Your task to perform on an android device: Go to network settings Image 0: 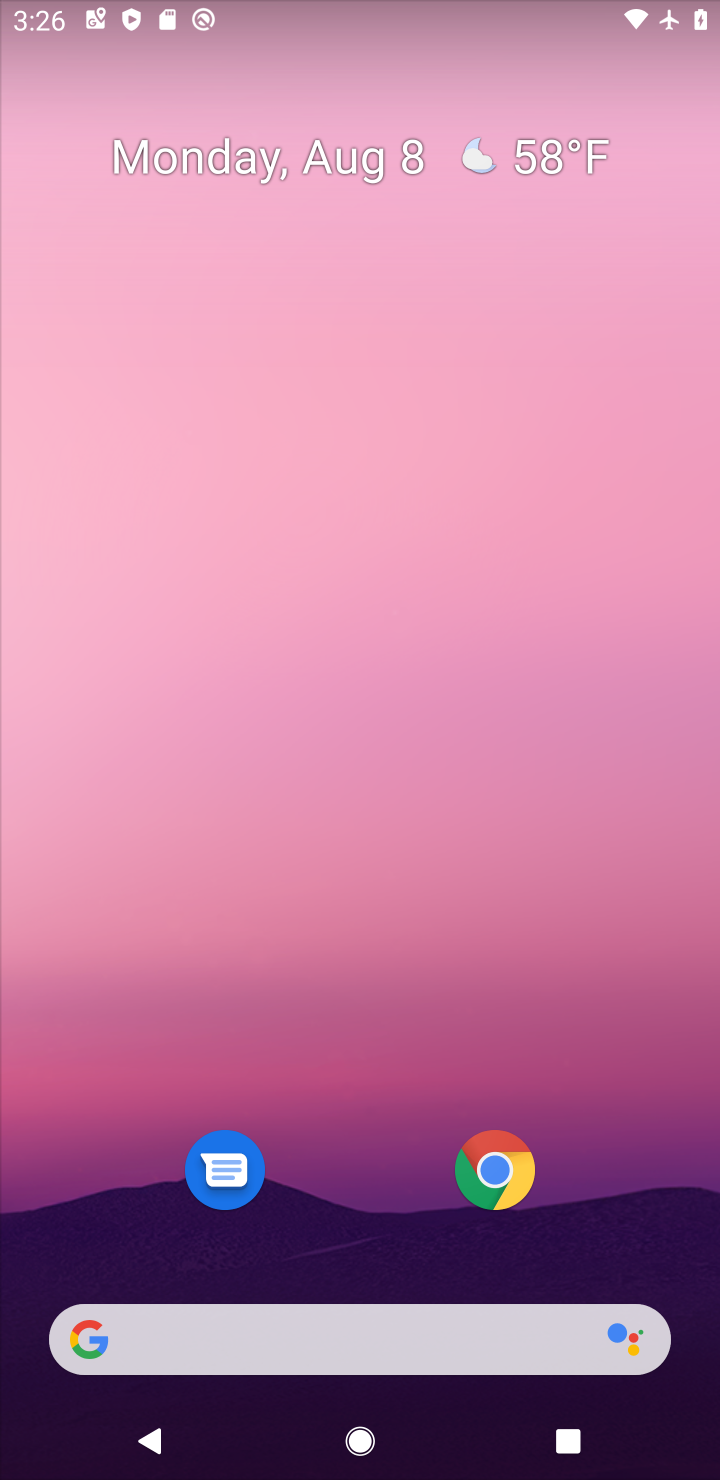
Step 0: drag from (359, 1019) to (368, 440)
Your task to perform on an android device: Go to network settings Image 1: 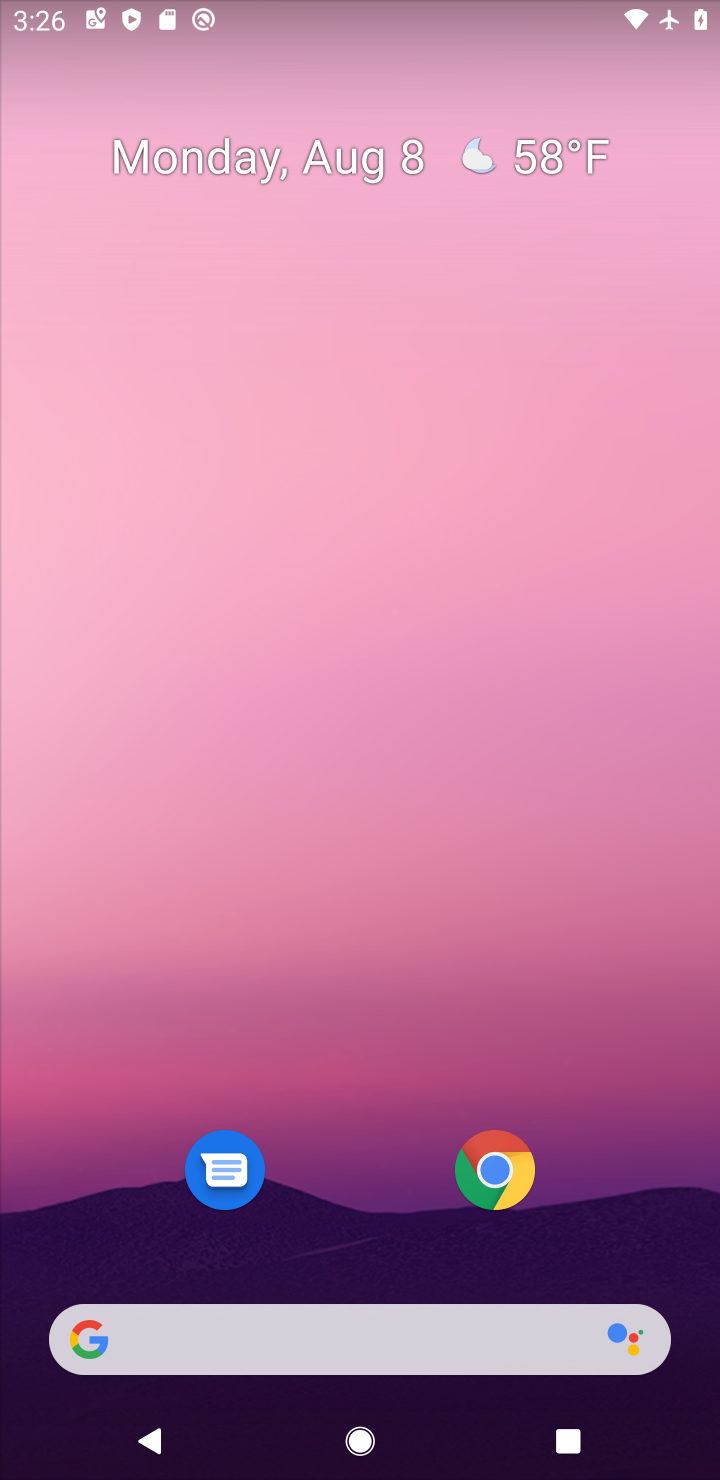
Step 1: drag from (356, 1188) to (435, 426)
Your task to perform on an android device: Go to network settings Image 2: 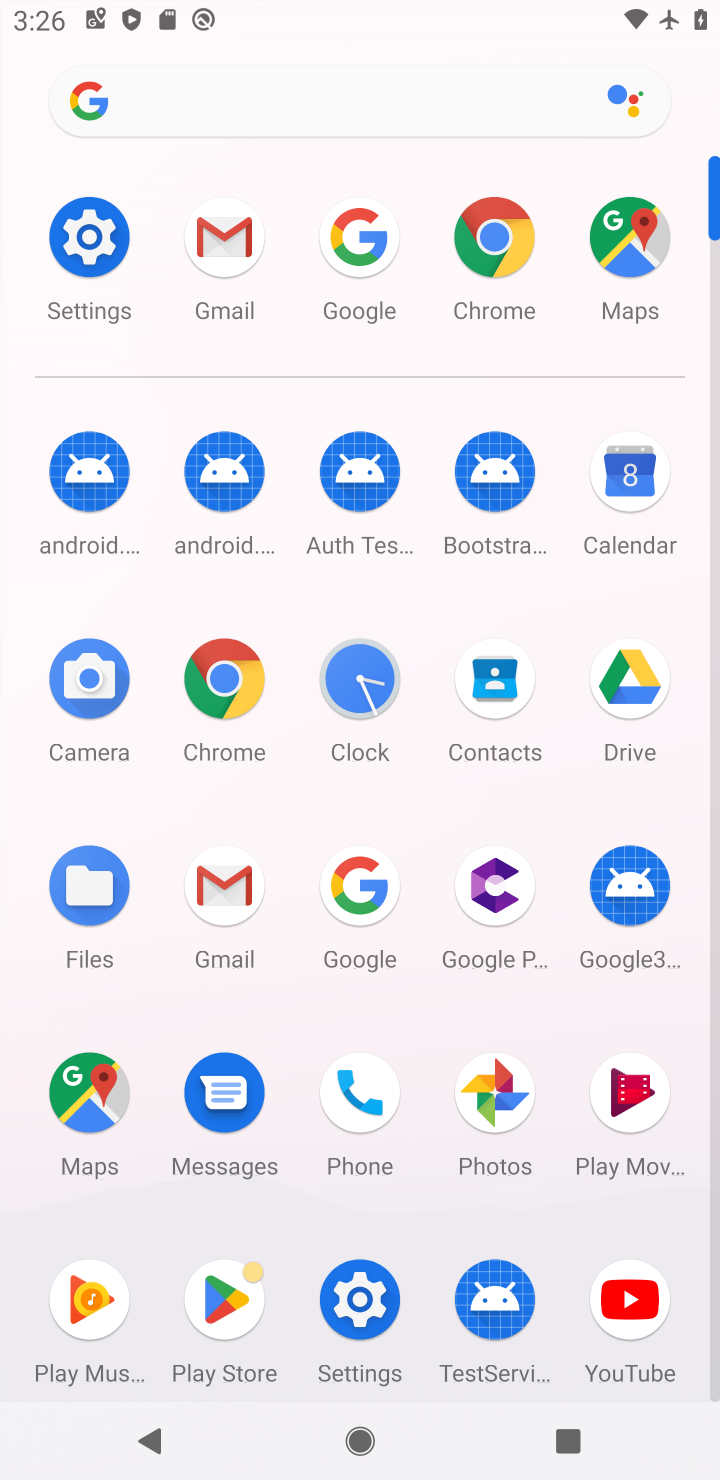
Step 2: click (84, 220)
Your task to perform on an android device: Go to network settings Image 3: 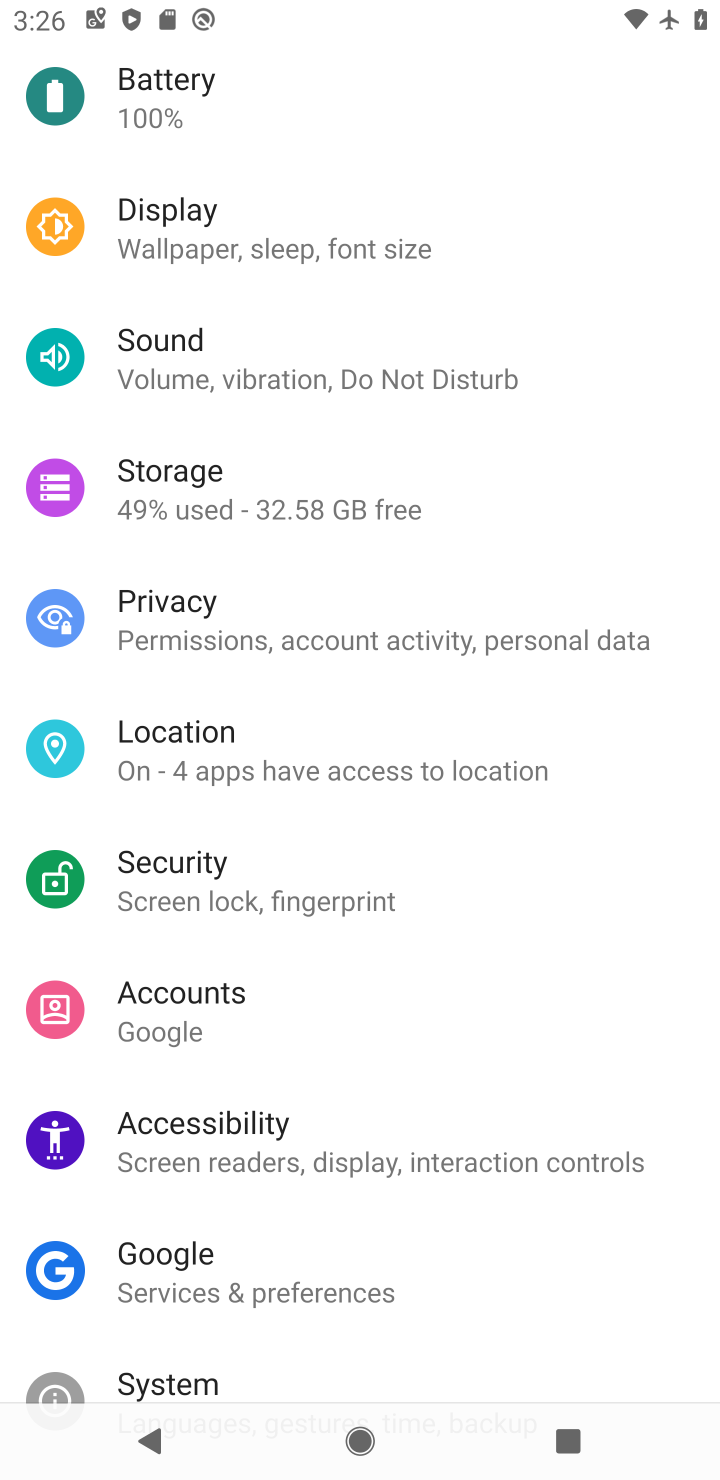
Step 3: drag from (306, 497) to (376, 1068)
Your task to perform on an android device: Go to network settings Image 4: 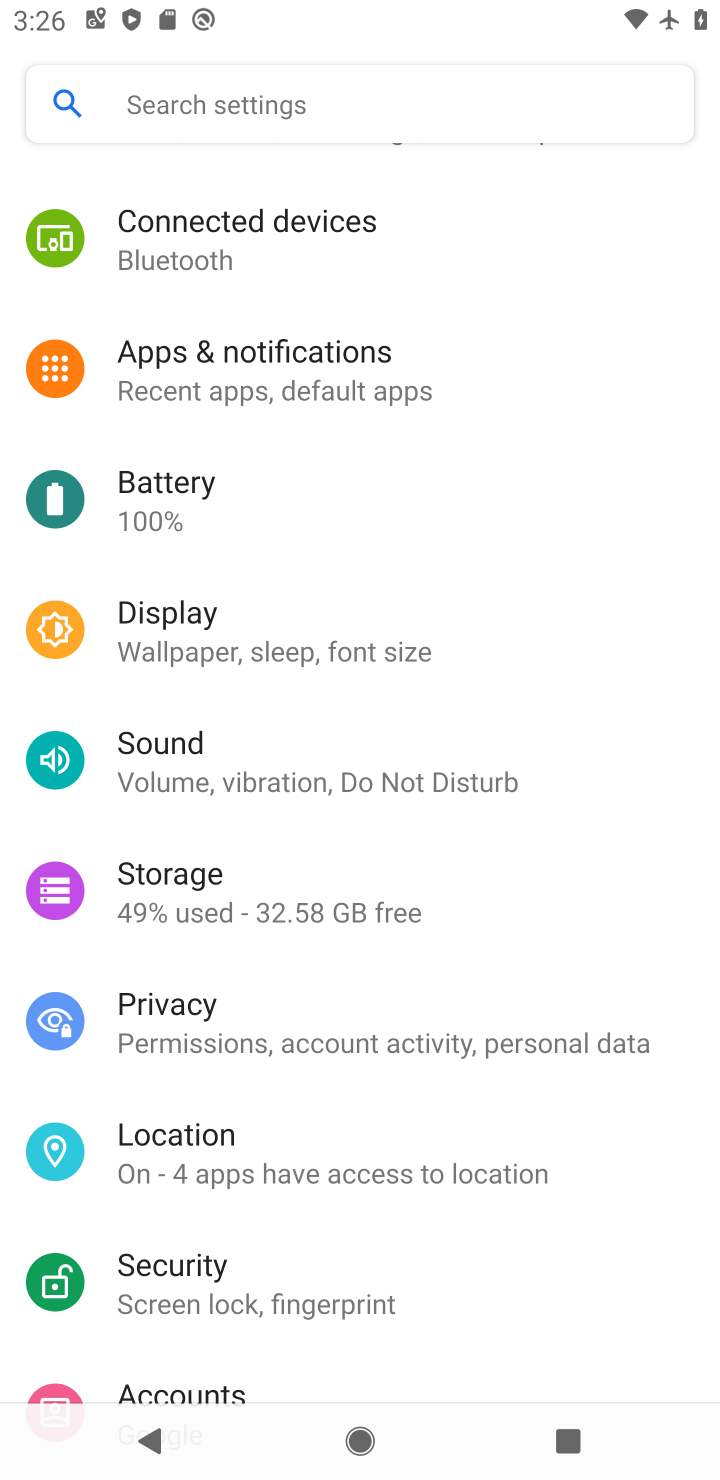
Step 4: drag from (432, 535) to (459, 1080)
Your task to perform on an android device: Go to network settings Image 5: 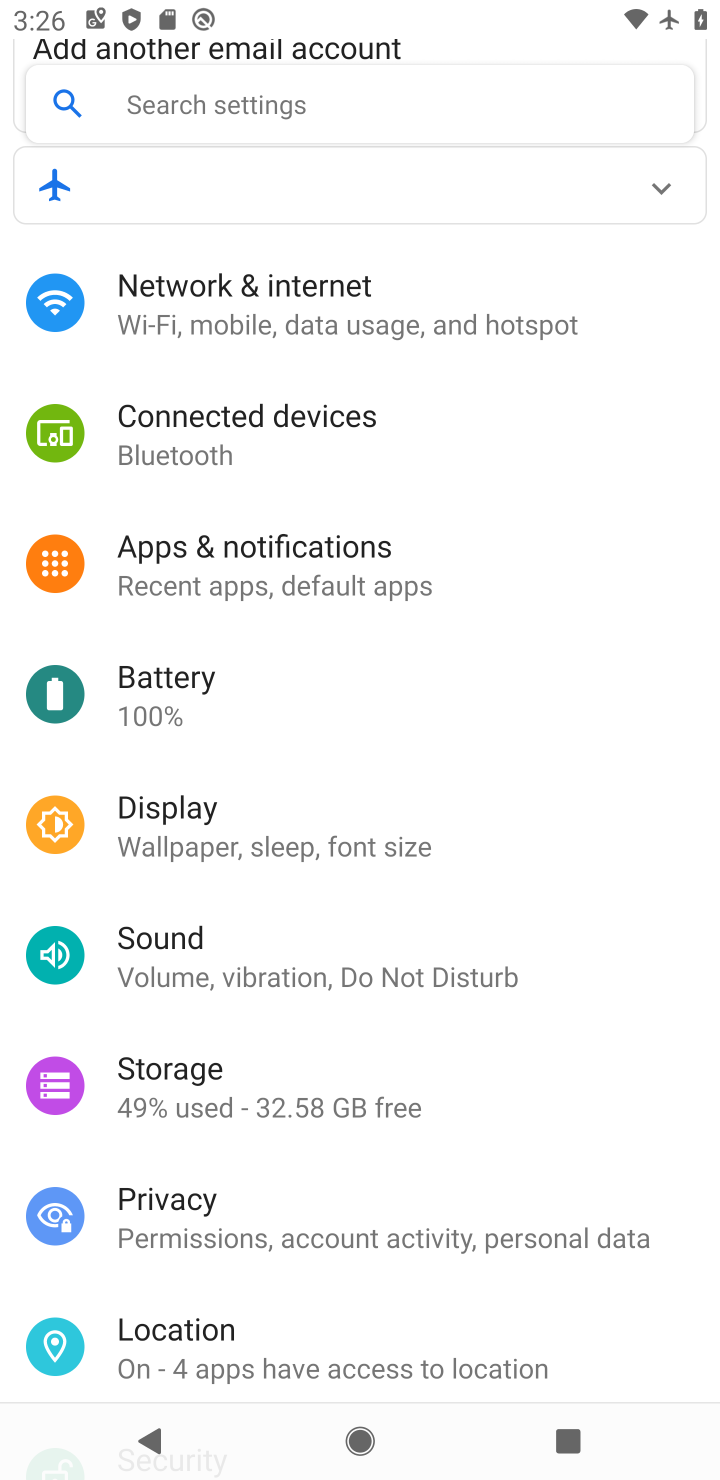
Step 5: click (203, 316)
Your task to perform on an android device: Go to network settings Image 6: 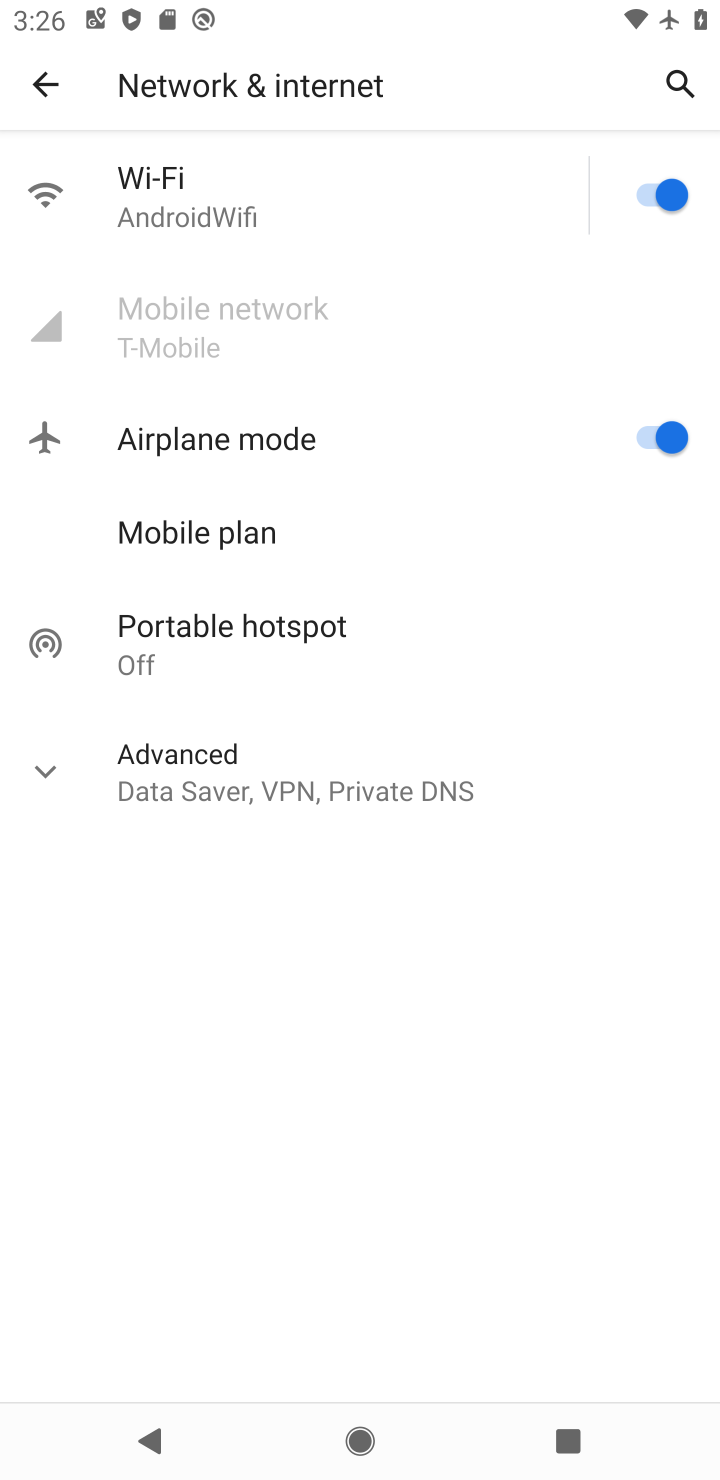
Step 6: task complete